Your task to perform on an android device: open a new tab in the chrome app Image 0: 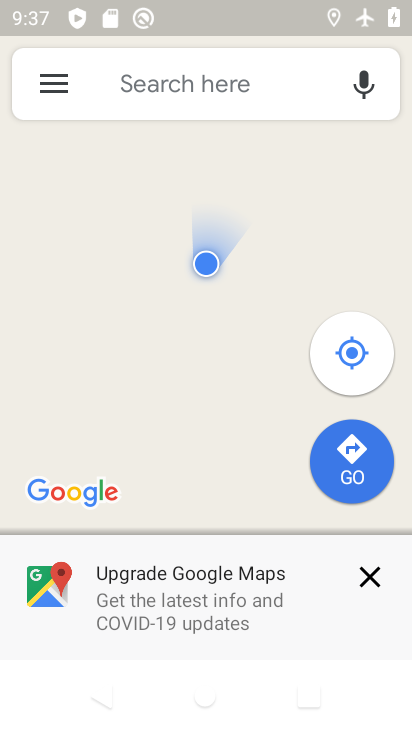
Step 0: press home button
Your task to perform on an android device: open a new tab in the chrome app Image 1: 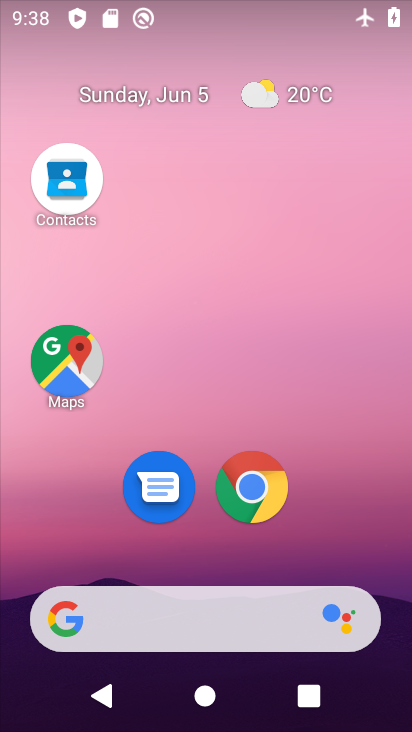
Step 1: drag from (238, 635) to (400, 0)
Your task to perform on an android device: open a new tab in the chrome app Image 2: 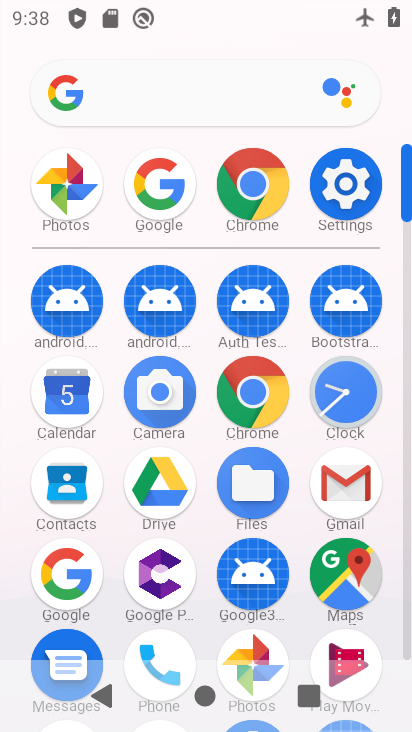
Step 2: click (269, 181)
Your task to perform on an android device: open a new tab in the chrome app Image 3: 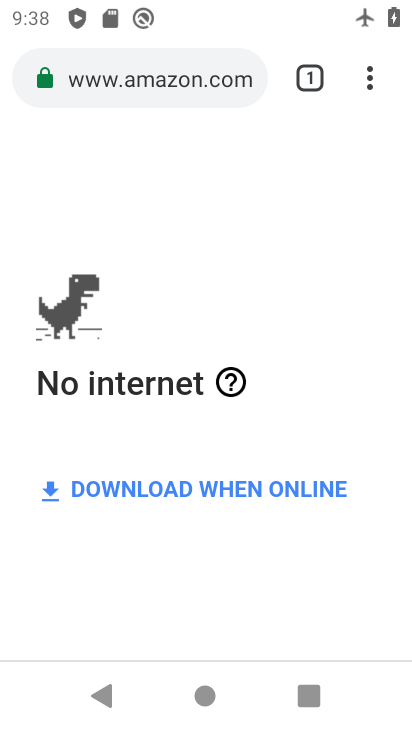
Step 3: drag from (311, 91) to (322, 345)
Your task to perform on an android device: open a new tab in the chrome app Image 4: 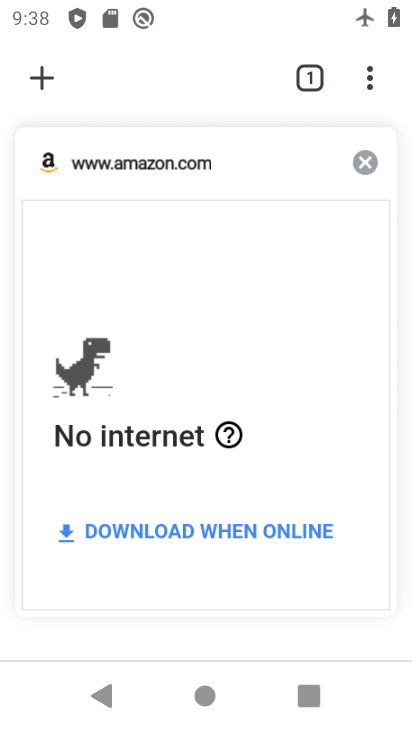
Step 4: click (47, 66)
Your task to perform on an android device: open a new tab in the chrome app Image 5: 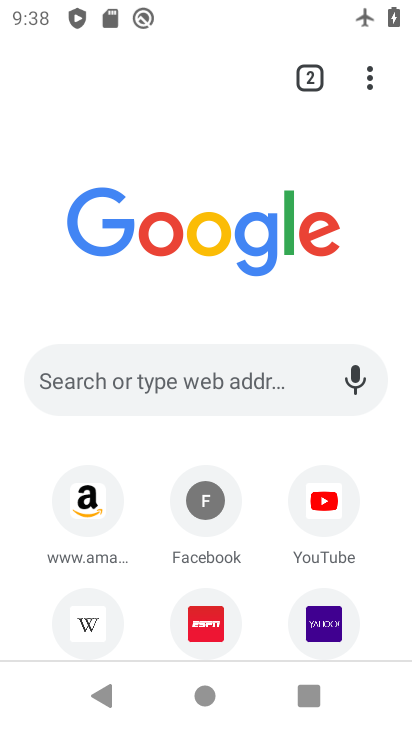
Step 5: task complete